Your task to perform on an android device: Open Chrome and go to settings Image 0: 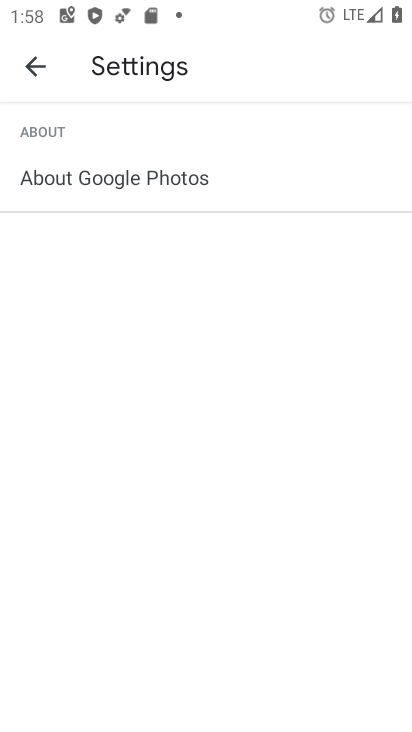
Step 0: press home button
Your task to perform on an android device: Open Chrome and go to settings Image 1: 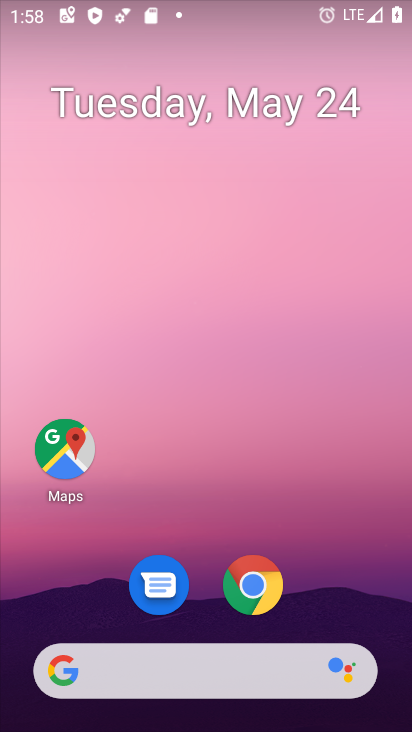
Step 1: click (258, 588)
Your task to perform on an android device: Open Chrome and go to settings Image 2: 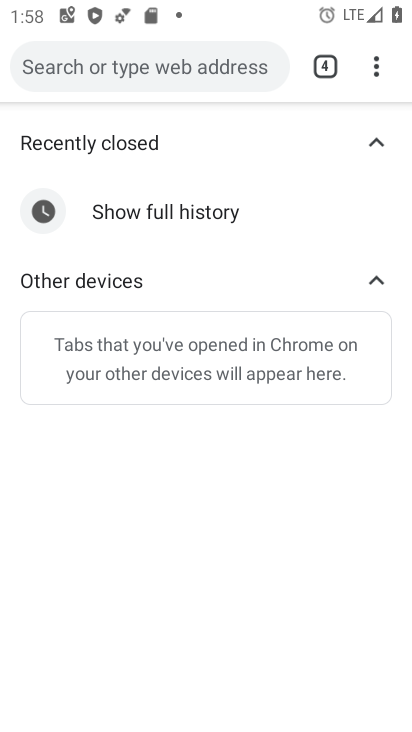
Step 2: click (370, 66)
Your task to perform on an android device: Open Chrome and go to settings Image 3: 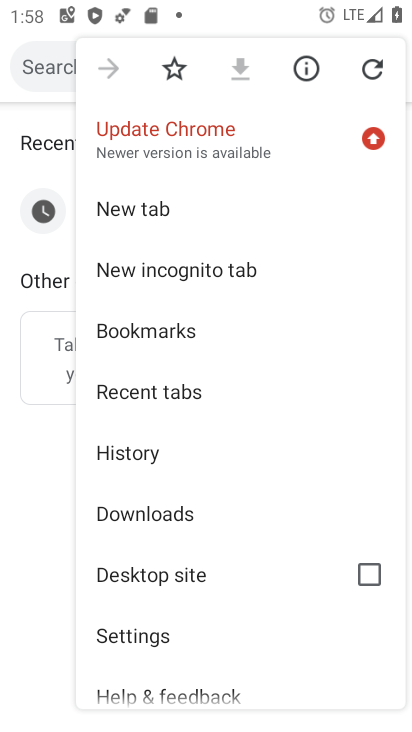
Step 3: click (215, 631)
Your task to perform on an android device: Open Chrome and go to settings Image 4: 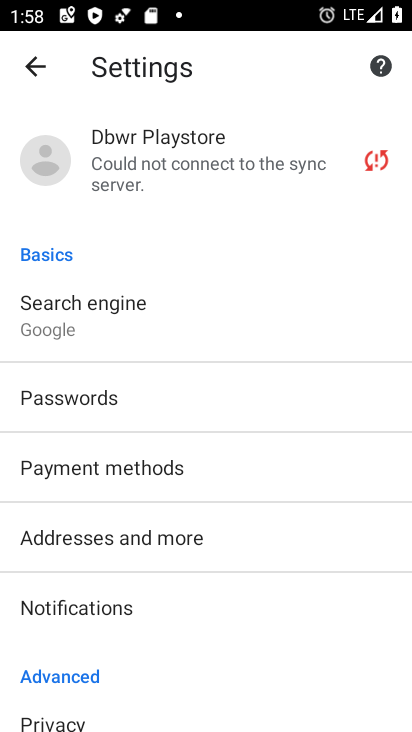
Step 4: task complete